Your task to perform on an android device: Go to internet settings Image 0: 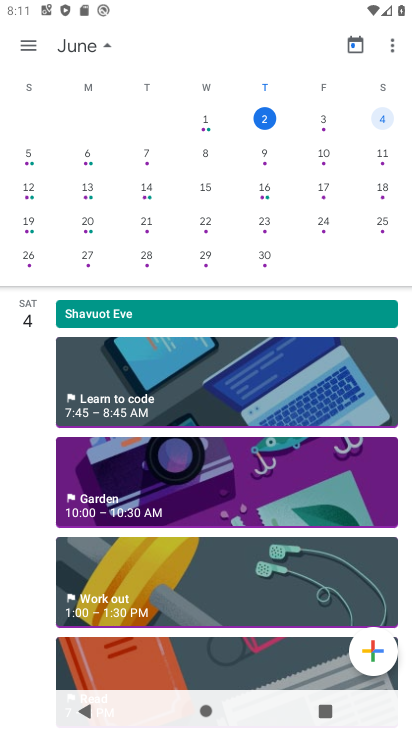
Step 0: press home button
Your task to perform on an android device: Go to internet settings Image 1: 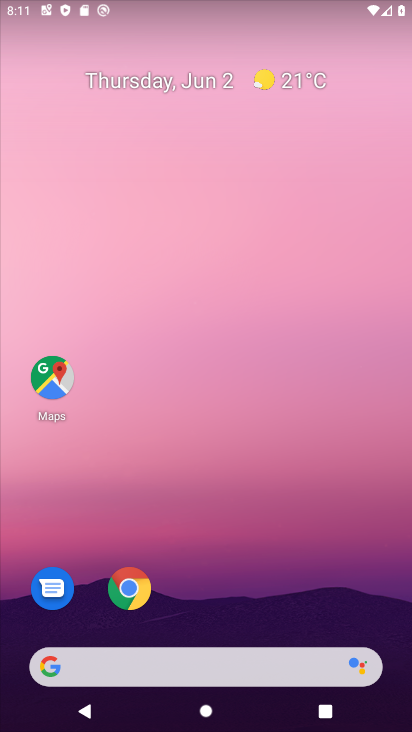
Step 1: drag from (224, 620) to (243, 160)
Your task to perform on an android device: Go to internet settings Image 2: 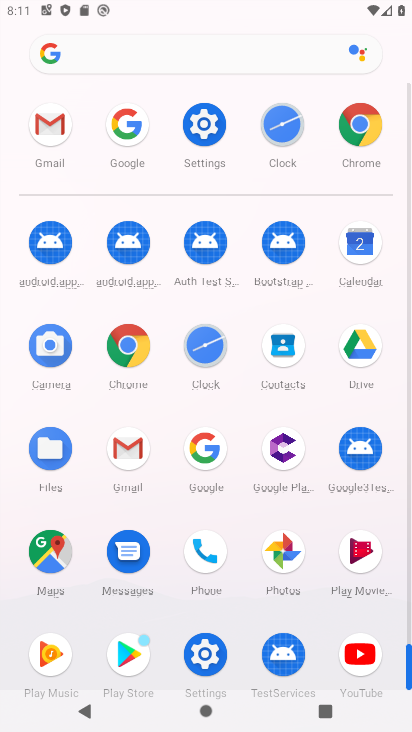
Step 2: click (208, 136)
Your task to perform on an android device: Go to internet settings Image 3: 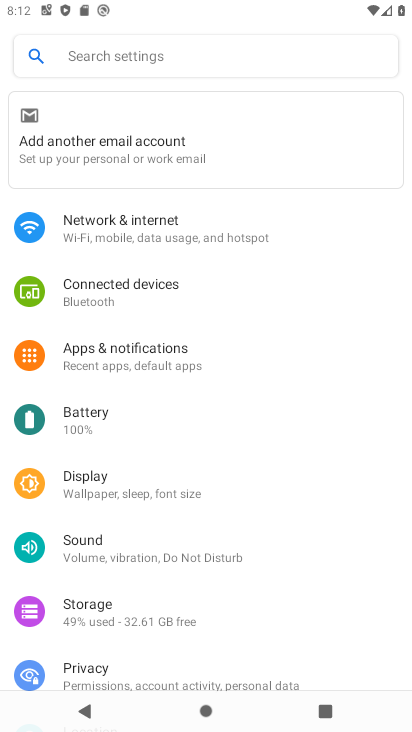
Step 3: click (179, 226)
Your task to perform on an android device: Go to internet settings Image 4: 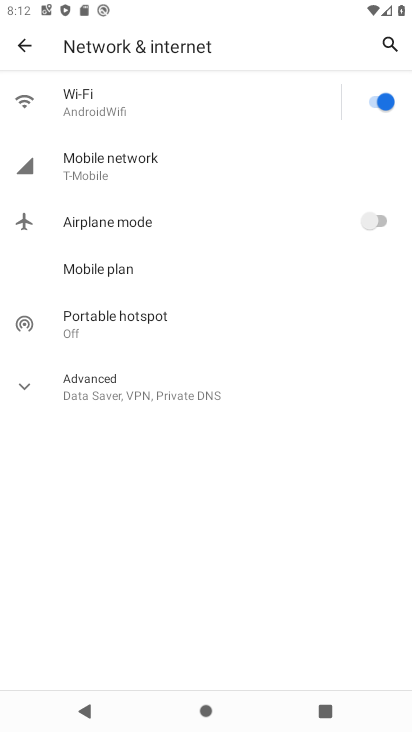
Step 4: click (157, 169)
Your task to perform on an android device: Go to internet settings Image 5: 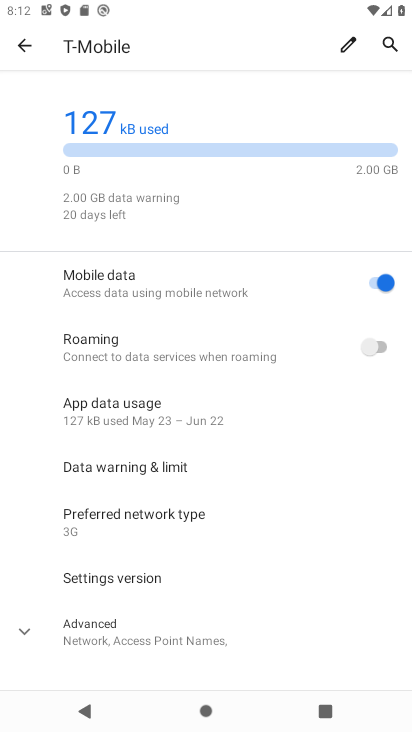
Step 5: task complete